Your task to perform on an android device: Turn on the flashlight Image 0: 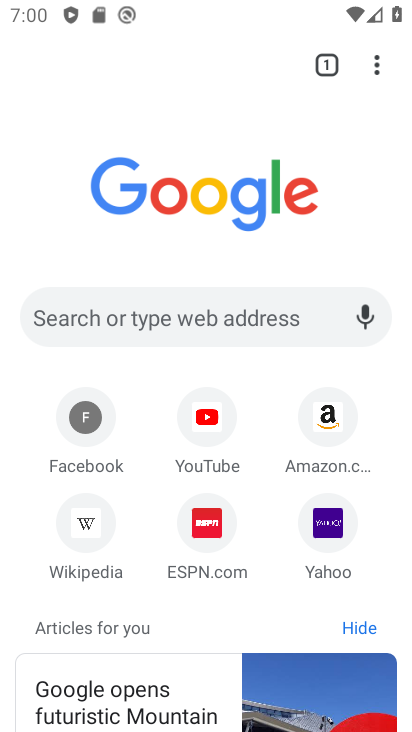
Step 0: press home button
Your task to perform on an android device: Turn on the flashlight Image 1: 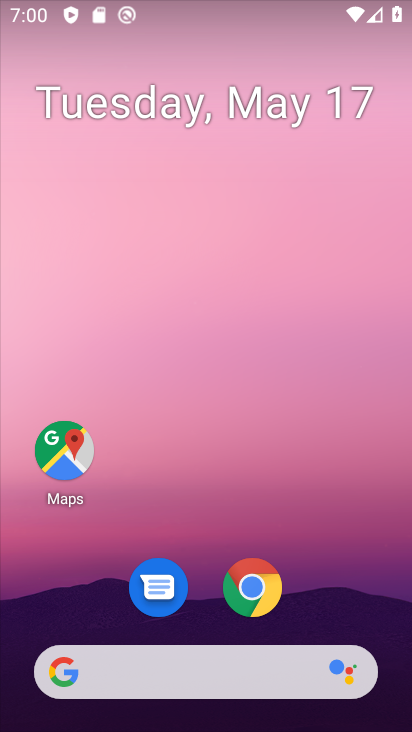
Step 1: drag from (227, 715) to (279, 271)
Your task to perform on an android device: Turn on the flashlight Image 2: 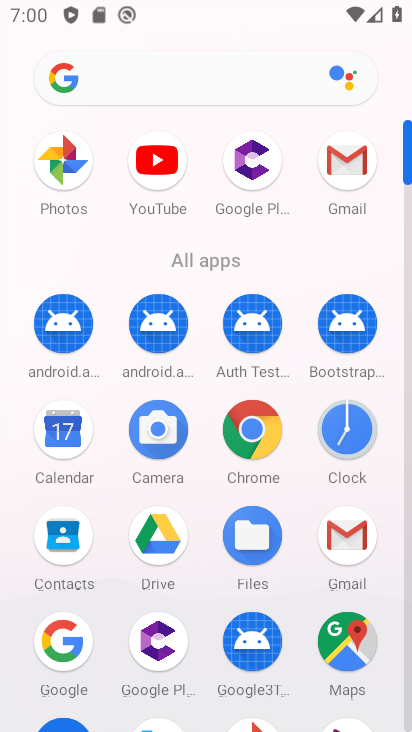
Step 2: drag from (200, 475) to (203, 232)
Your task to perform on an android device: Turn on the flashlight Image 3: 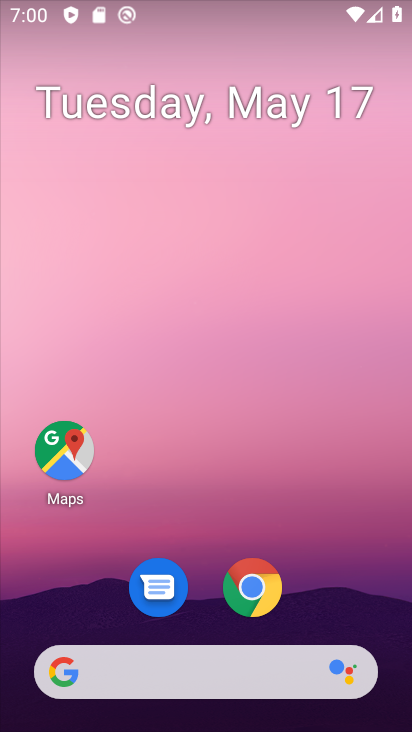
Step 3: drag from (229, 704) to (162, 216)
Your task to perform on an android device: Turn on the flashlight Image 4: 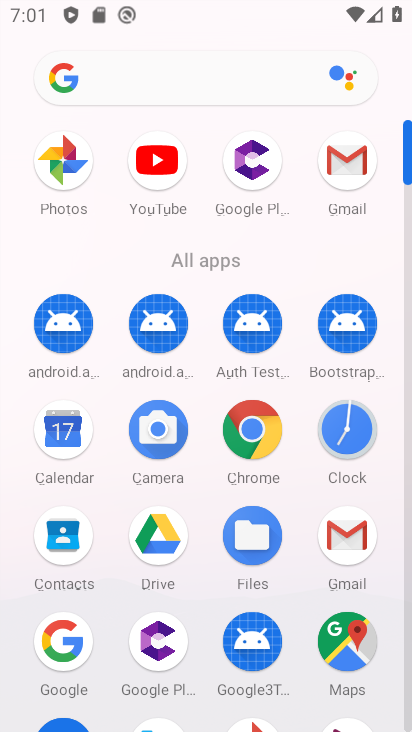
Step 4: drag from (203, 484) to (206, 344)
Your task to perform on an android device: Turn on the flashlight Image 5: 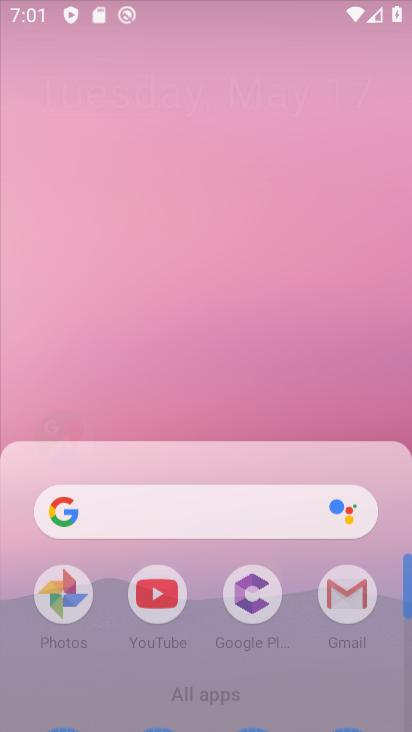
Step 5: drag from (94, 275) to (130, 181)
Your task to perform on an android device: Turn on the flashlight Image 6: 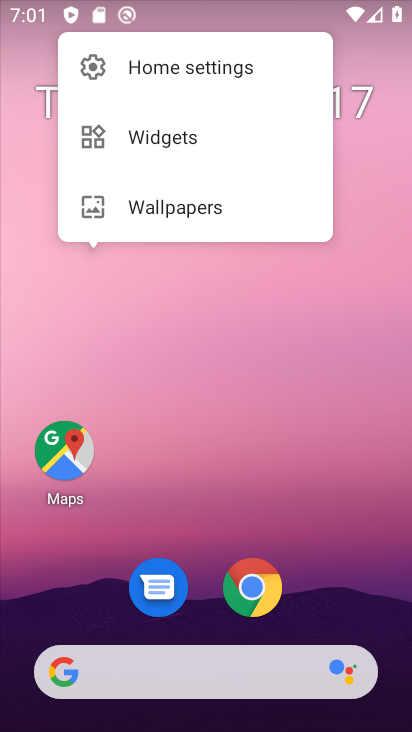
Step 6: click (304, 419)
Your task to perform on an android device: Turn on the flashlight Image 7: 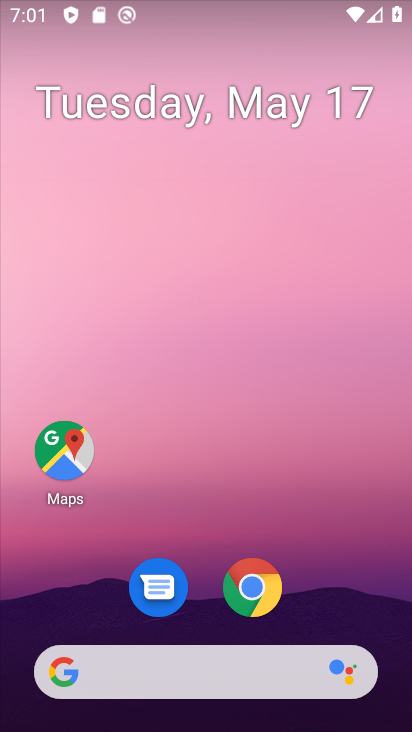
Step 7: drag from (228, 699) to (185, 273)
Your task to perform on an android device: Turn on the flashlight Image 8: 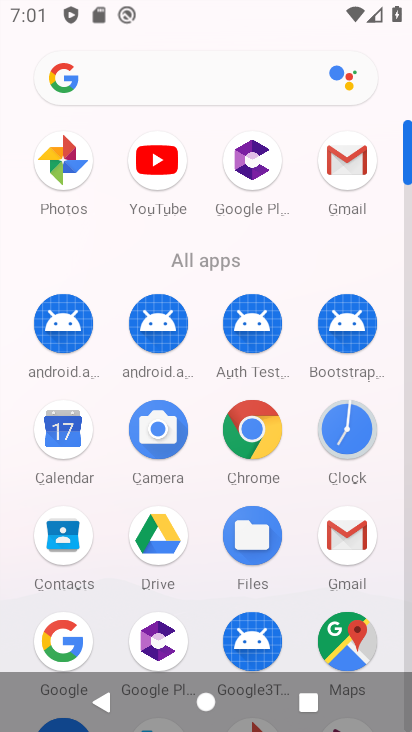
Step 8: drag from (109, 590) to (119, 346)
Your task to perform on an android device: Turn on the flashlight Image 9: 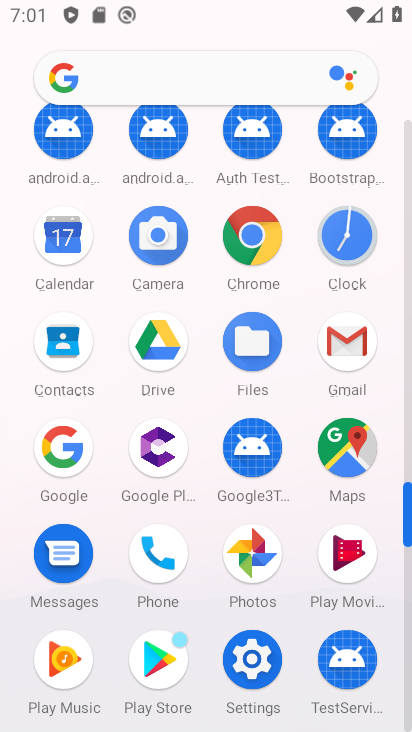
Step 9: click (275, 657)
Your task to perform on an android device: Turn on the flashlight Image 10: 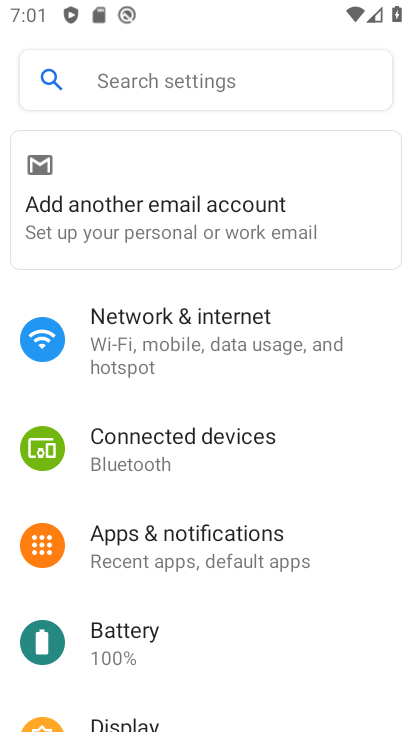
Step 10: click (151, 84)
Your task to perform on an android device: Turn on the flashlight Image 11: 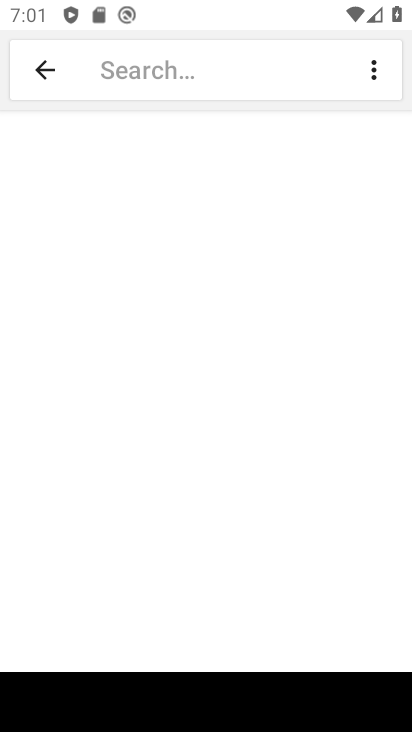
Step 11: click (377, 706)
Your task to perform on an android device: Turn on the flashlight Image 12: 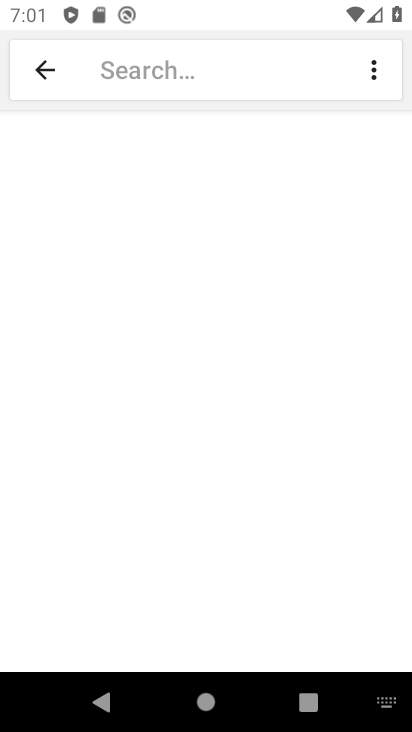
Step 12: click (397, 707)
Your task to perform on an android device: Turn on the flashlight Image 13: 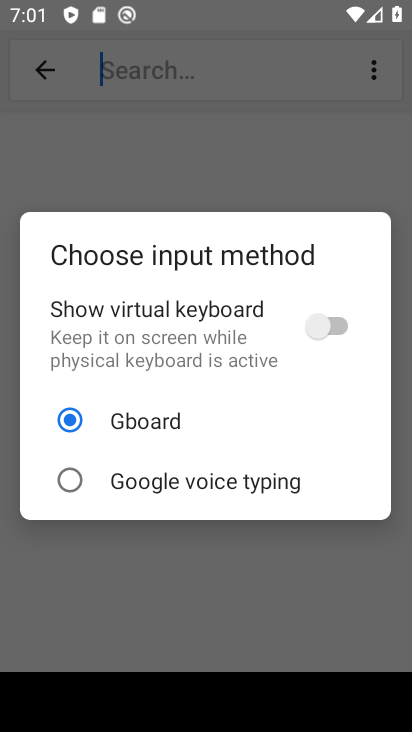
Step 13: click (314, 326)
Your task to perform on an android device: Turn on the flashlight Image 14: 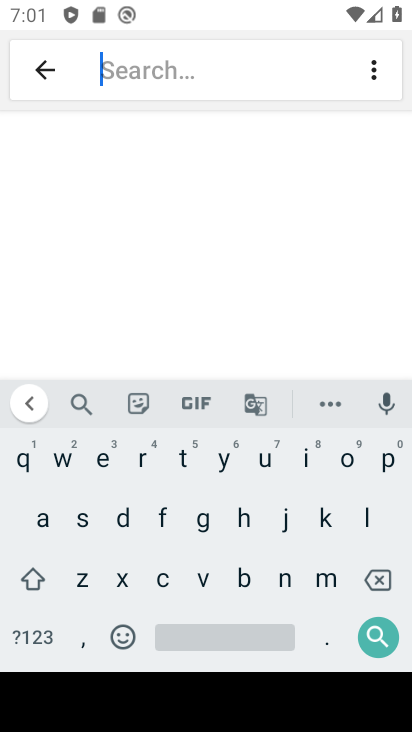
Step 14: click (166, 515)
Your task to perform on an android device: Turn on the flashlight Image 15: 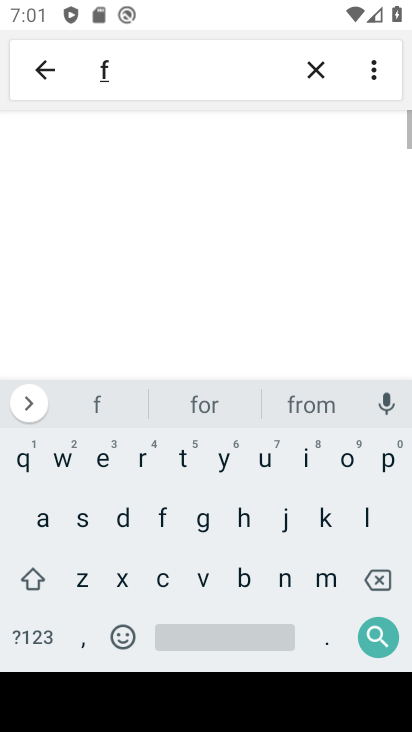
Step 15: click (367, 523)
Your task to perform on an android device: Turn on the flashlight Image 16: 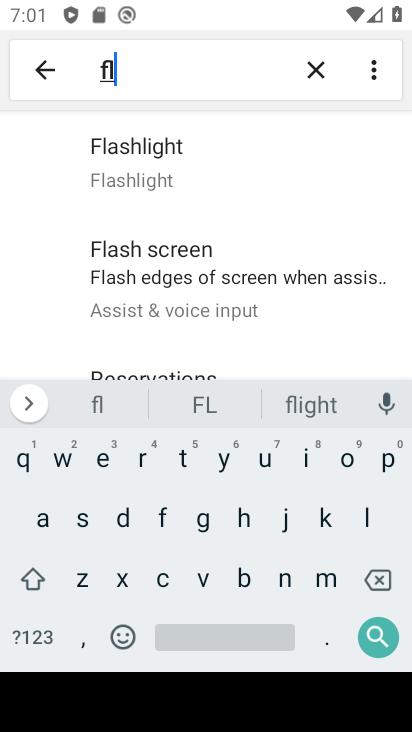
Step 16: click (163, 183)
Your task to perform on an android device: Turn on the flashlight Image 17: 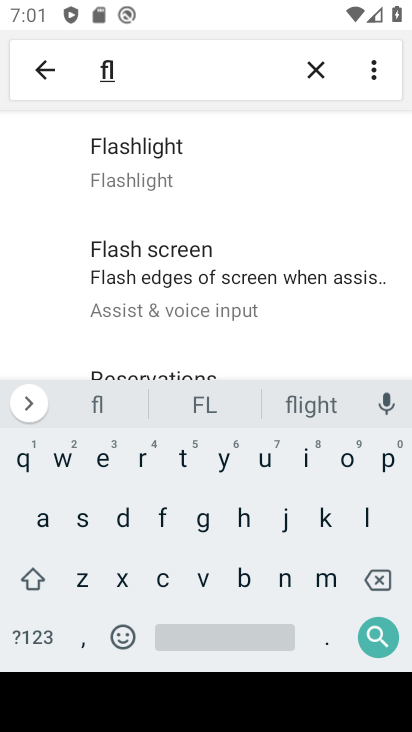
Step 17: task complete